Your task to perform on an android device: add a contact Image 0: 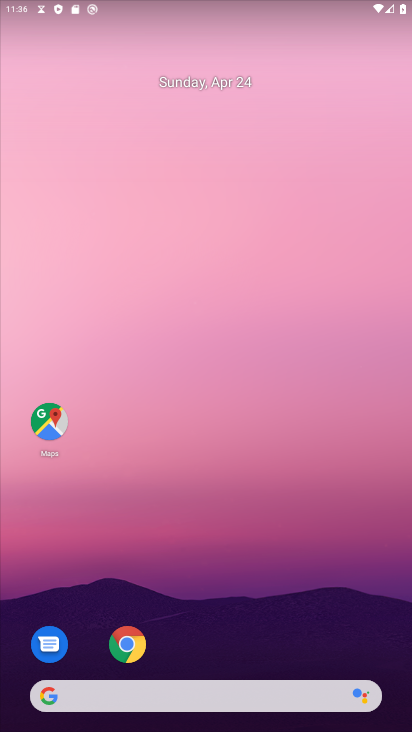
Step 0: drag from (326, 534) to (338, 1)
Your task to perform on an android device: add a contact Image 1: 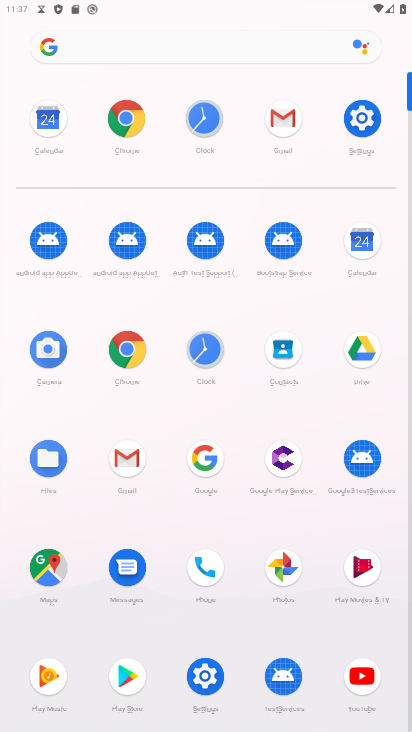
Step 1: click (287, 354)
Your task to perform on an android device: add a contact Image 2: 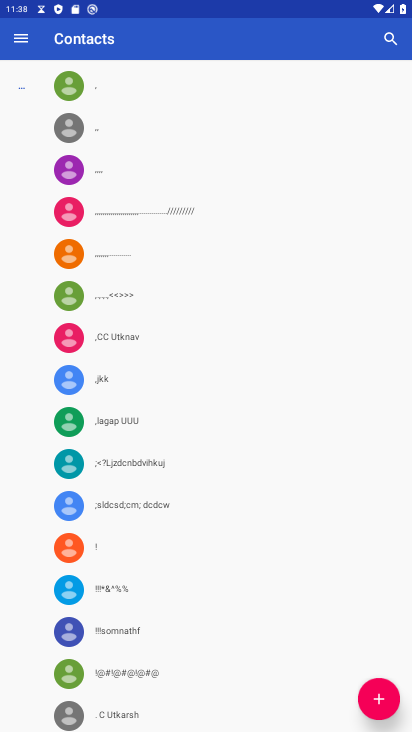
Step 2: click (380, 704)
Your task to perform on an android device: add a contact Image 3: 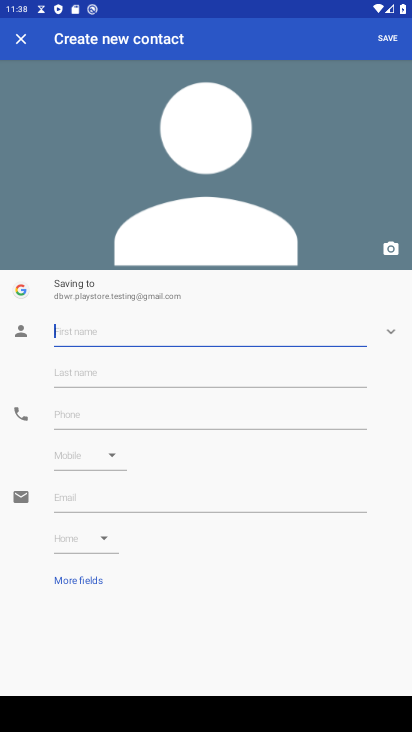
Step 3: click (124, 336)
Your task to perform on an android device: add a contact Image 4: 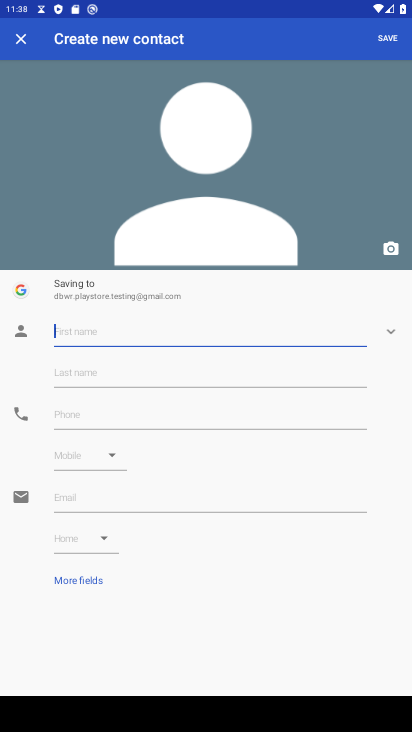
Step 4: type "surya"
Your task to perform on an android device: add a contact Image 5: 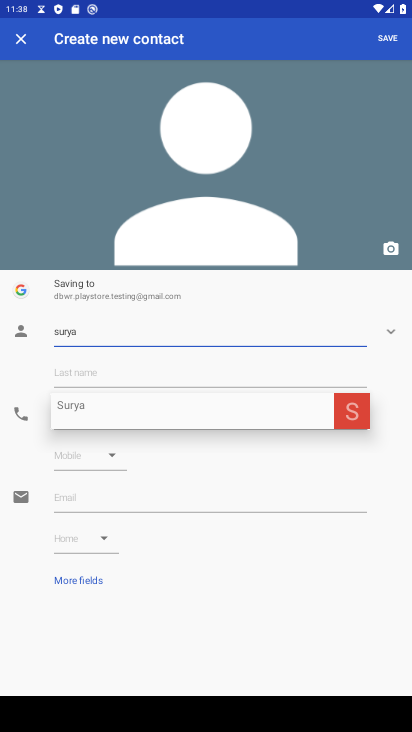
Step 5: click (380, 424)
Your task to perform on an android device: add a contact Image 6: 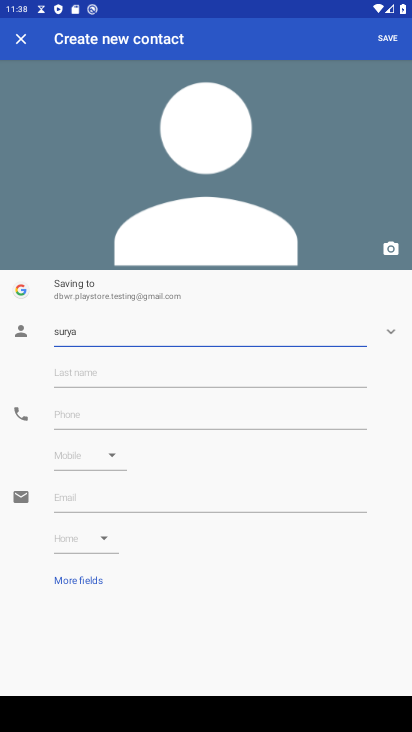
Step 6: click (100, 414)
Your task to perform on an android device: add a contact Image 7: 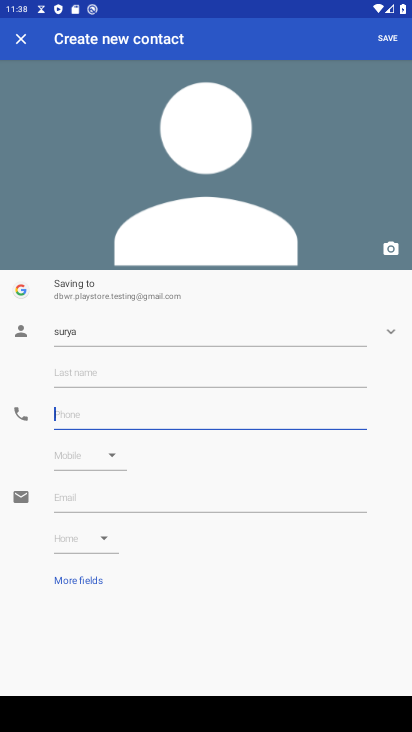
Step 7: type "37465896875"
Your task to perform on an android device: add a contact Image 8: 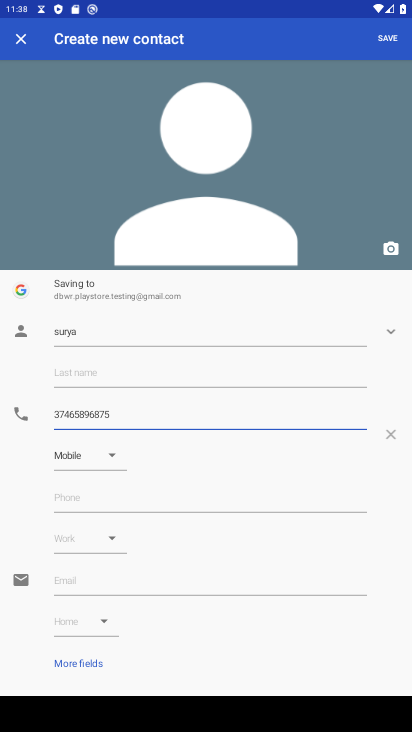
Step 8: click (381, 44)
Your task to perform on an android device: add a contact Image 9: 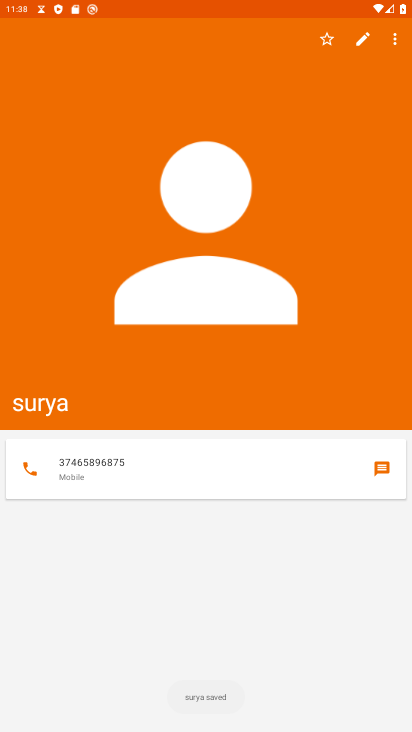
Step 9: task complete